Your task to perform on an android device: Check the news Image 0: 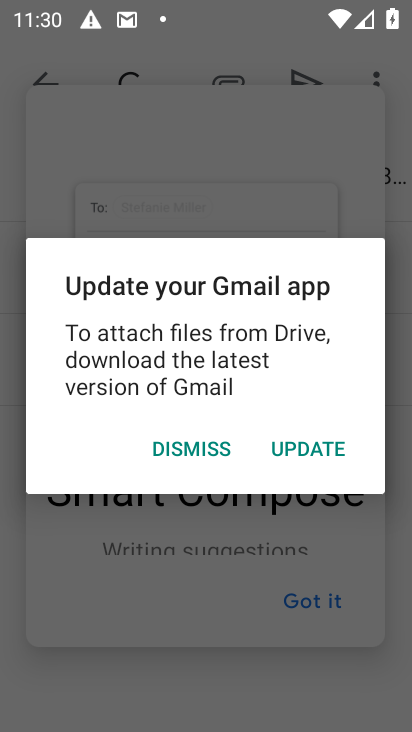
Step 0: press home button
Your task to perform on an android device: Check the news Image 1: 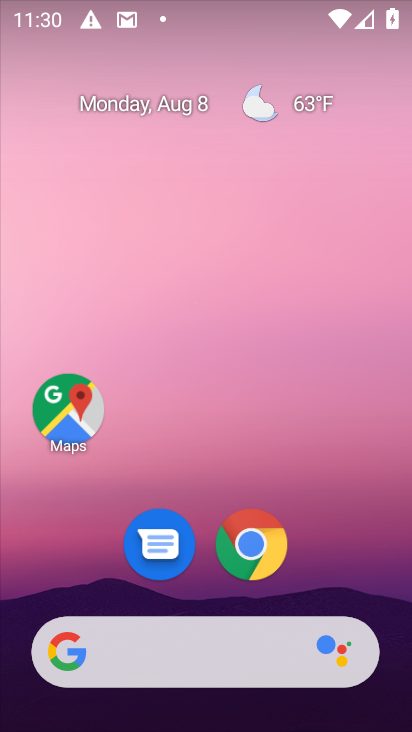
Step 1: drag from (204, 670) to (199, 160)
Your task to perform on an android device: Check the news Image 2: 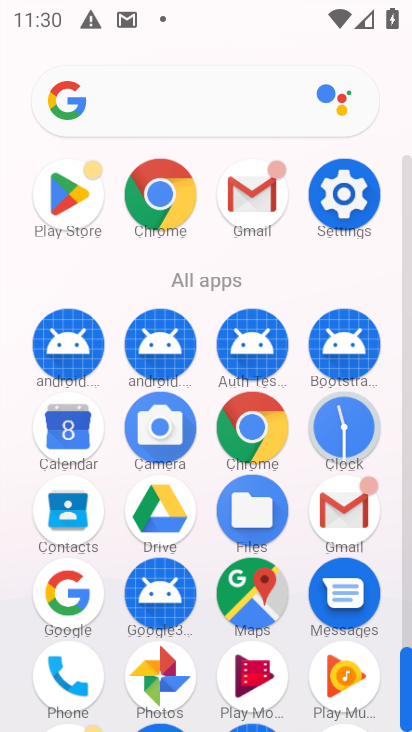
Step 2: click (63, 589)
Your task to perform on an android device: Check the news Image 3: 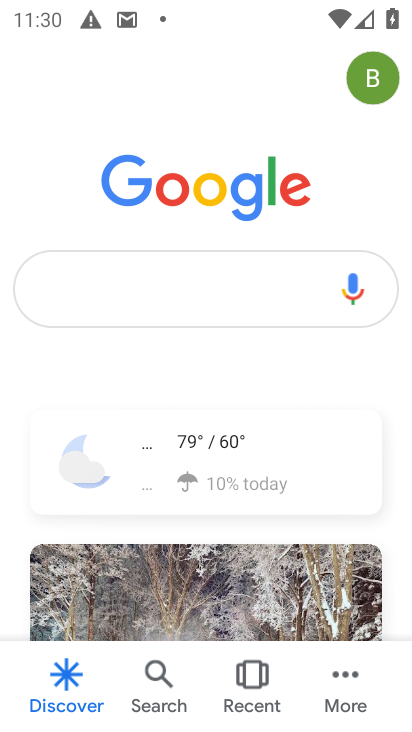
Step 3: click (160, 288)
Your task to perform on an android device: Check the news Image 4: 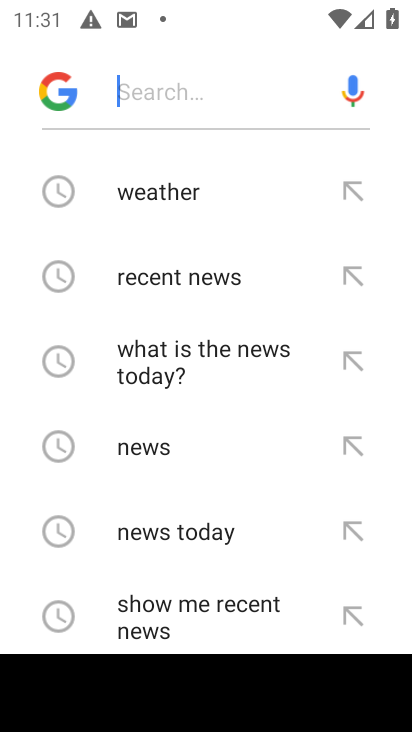
Step 4: click (152, 452)
Your task to perform on an android device: Check the news Image 5: 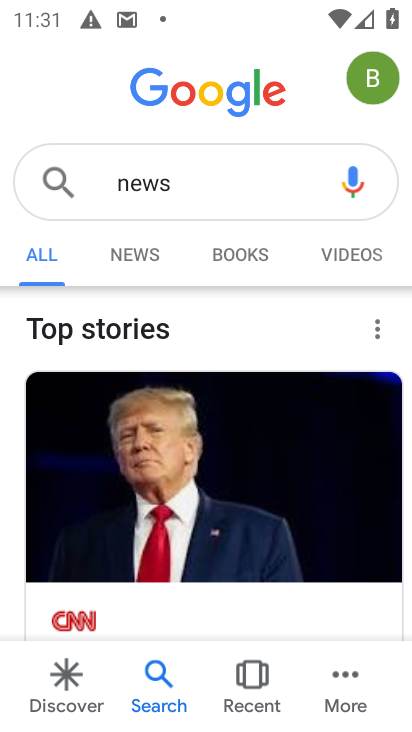
Step 5: drag from (194, 503) to (280, 206)
Your task to perform on an android device: Check the news Image 6: 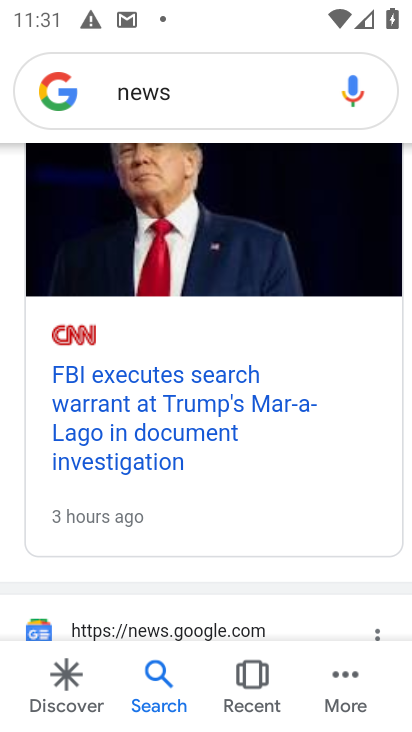
Step 6: click (208, 415)
Your task to perform on an android device: Check the news Image 7: 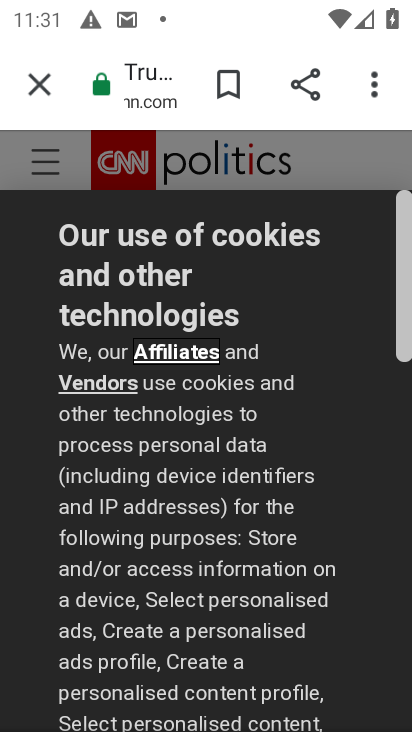
Step 7: task complete